Your task to perform on an android device: Open maps Image 0: 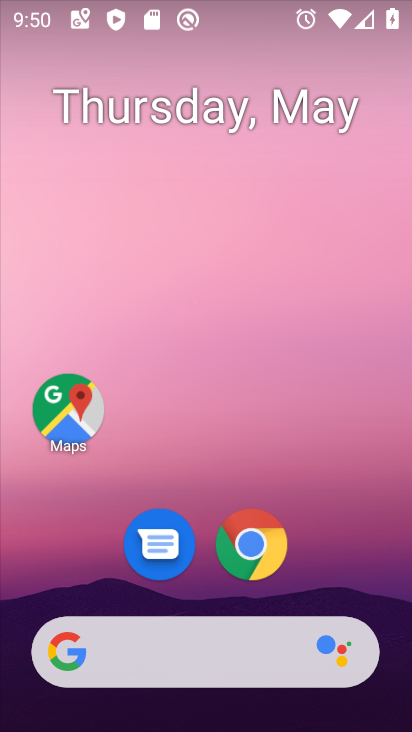
Step 0: click (65, 409)
Your task to perform on an android device: Open maps Image 1: 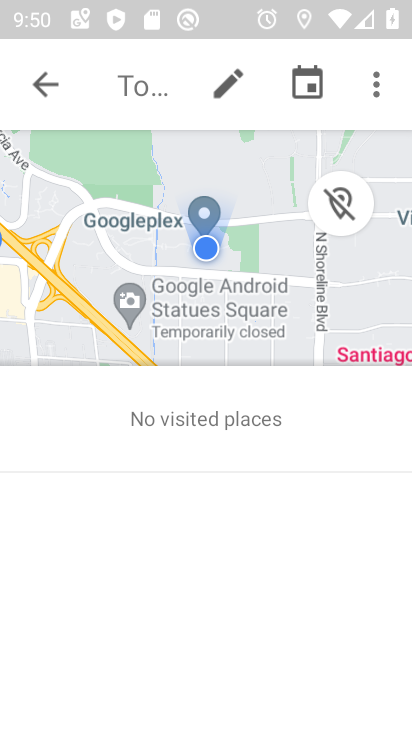
Step 1: task complete